Your task to perform on an android device: add a contact in the contacts app Image 0: 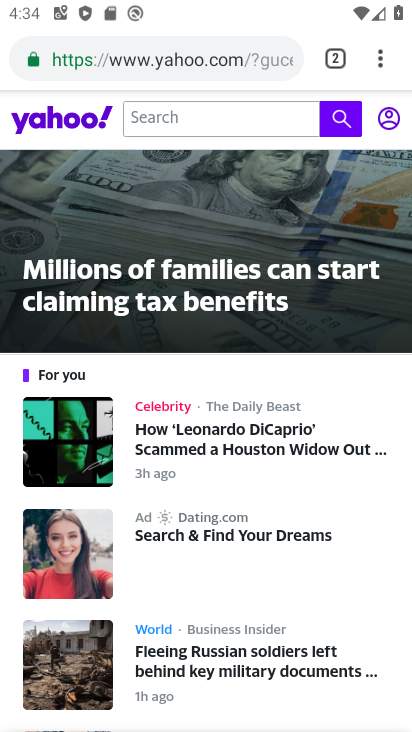
Step 0: press home button
Your task to perform on an android device: add a contact in the contacts app Image 1: 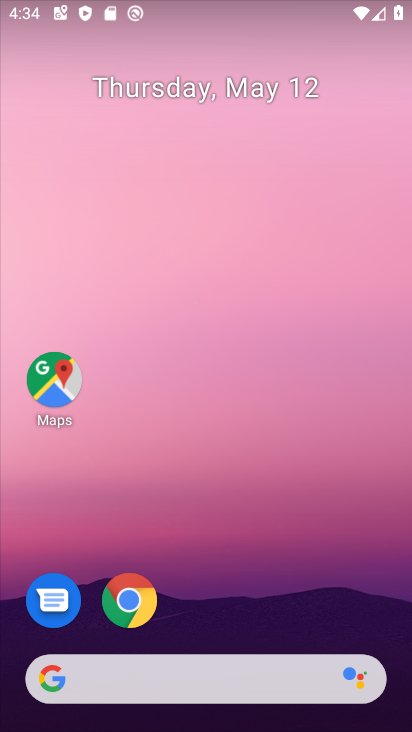
Step 1: drag from (243, 596) to (358, 124)
Your task to perform on an android device: add a contact in the contacts app Image 2: 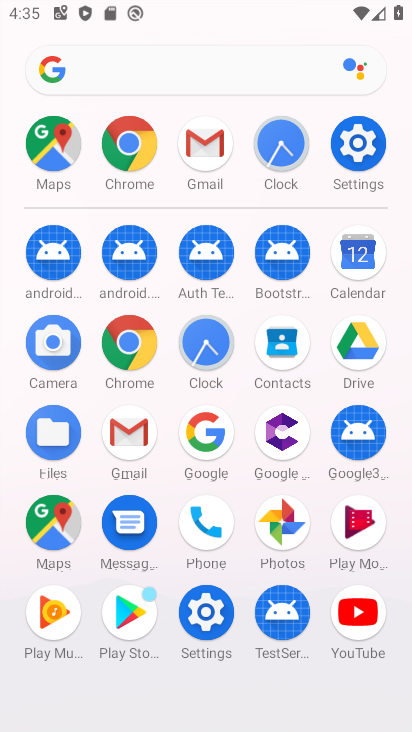
Step 2: click (279, 349)
Your task to perform on an android device: add a contact in the contacts app Image 3: 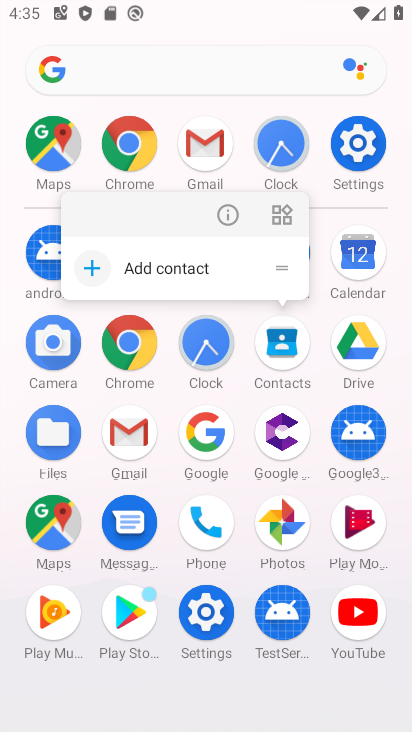
Step 3: click (226, 209)
Your task to perform on an android device: add a contact in the contacts app Image 4: 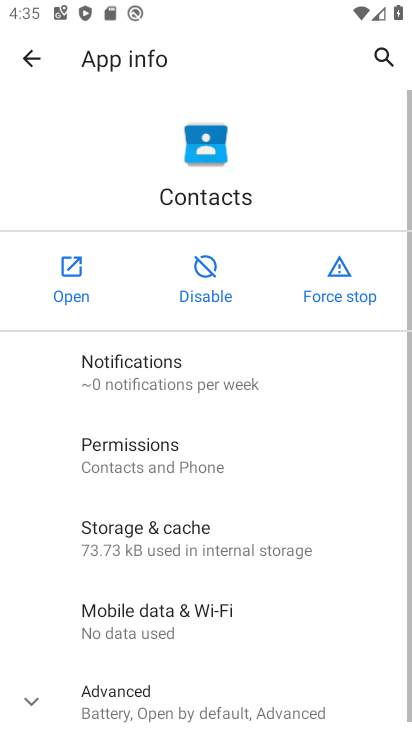
Step 4: click (77, 252)
Your task to perform on an android device: add a contact in the contacts app Image 5: 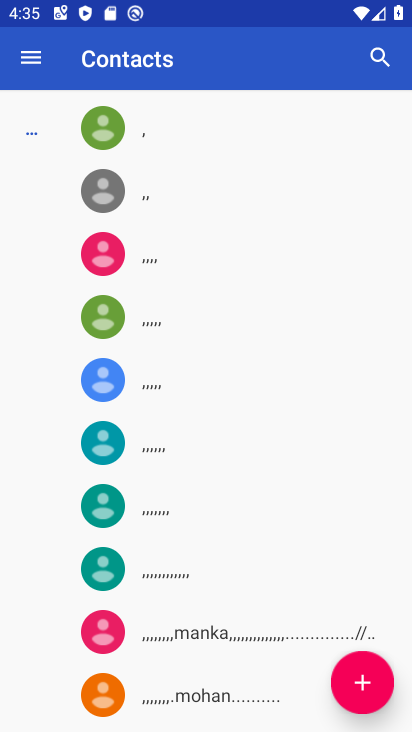
Step 5: drag from (241, 592) to (281, 330)
Your task to perform on an android device: add a contact in the contacts app Image 6: 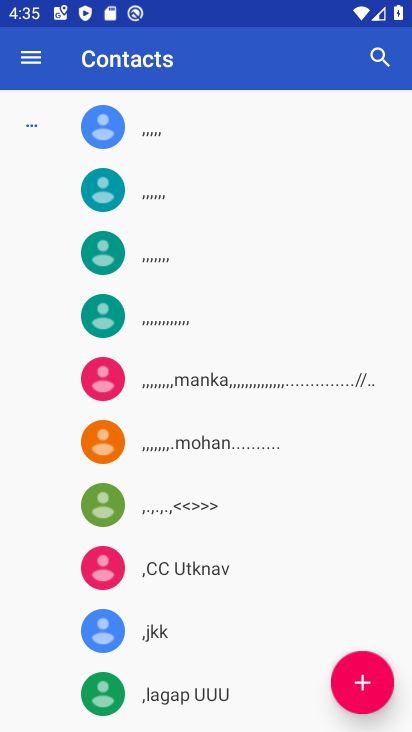
Step 6: drag from (170, 261) to (216, 641)
Your task to perform on an android device: add a contact in the contacts app Image 7: 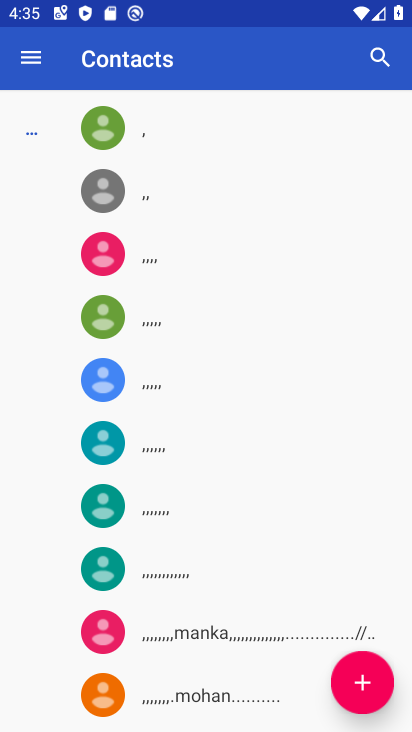
Step 7: drag from (219, 333) to (230, 658)
Your task to perform on an android device: add a contact in the contacts app Image 8: 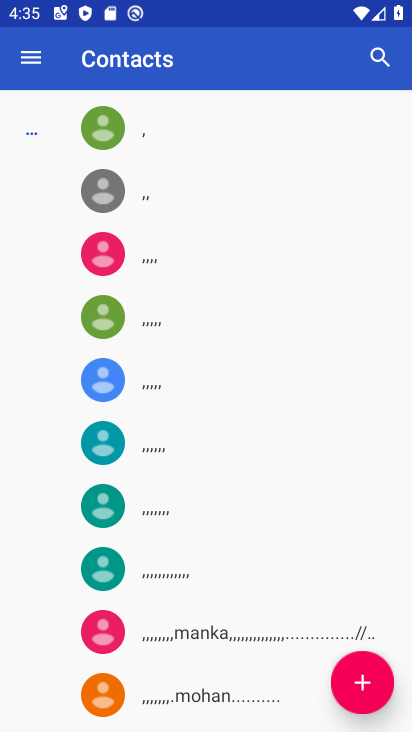
Step 8: drag from (193, 233) to (252, 540)
Your task to perform on an android device: add a contact in the contacts app Image 9: 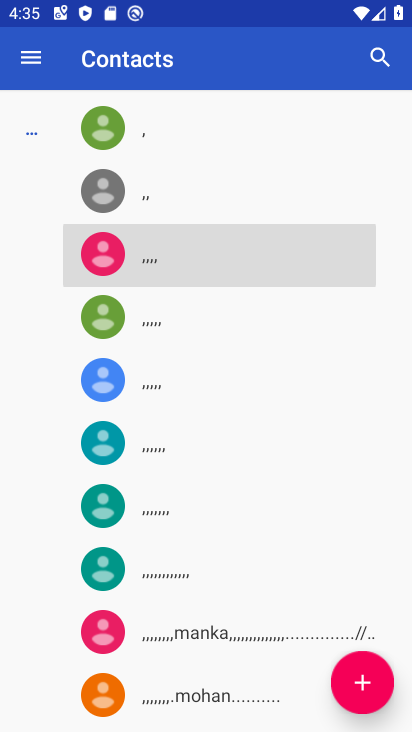
Step 9: click (354, 687)
Your task to perform on an android device: add a contact in the contacts app Image 10: 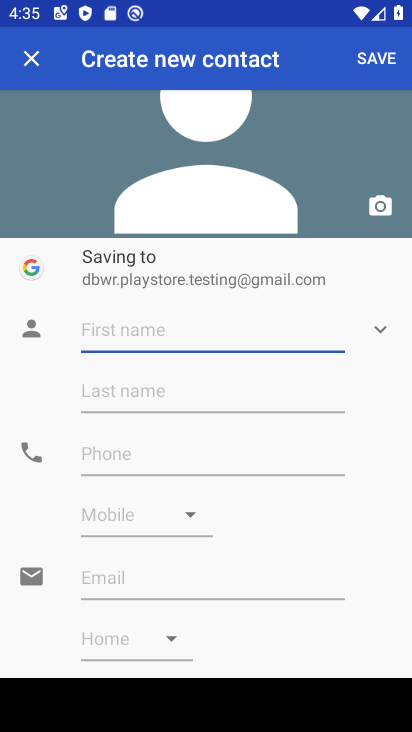
Step 10: click (149, 324)
Your task to perform on an android device: add a contact in the contacts app Image 11: 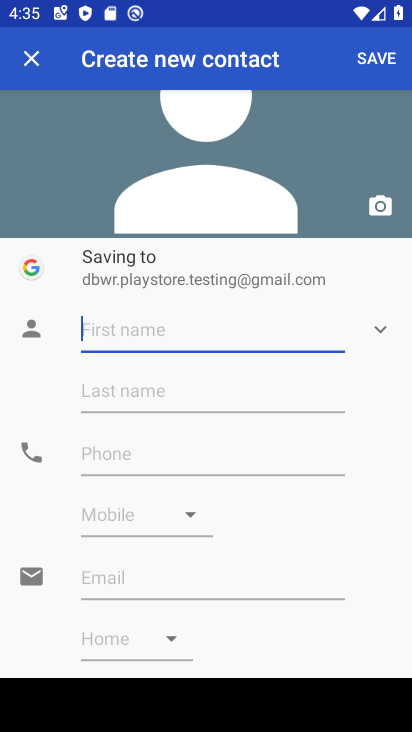
Step 11: type "mjka"
Your task to perform on an android device: add a contact in the contacts app Image 12: 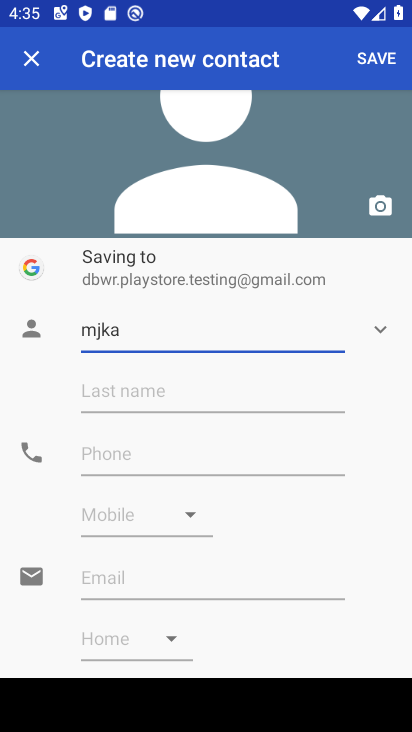
Step 12: click (377, 53)
Your task to perform on an android device: add a contact in the contacts app Image 13: 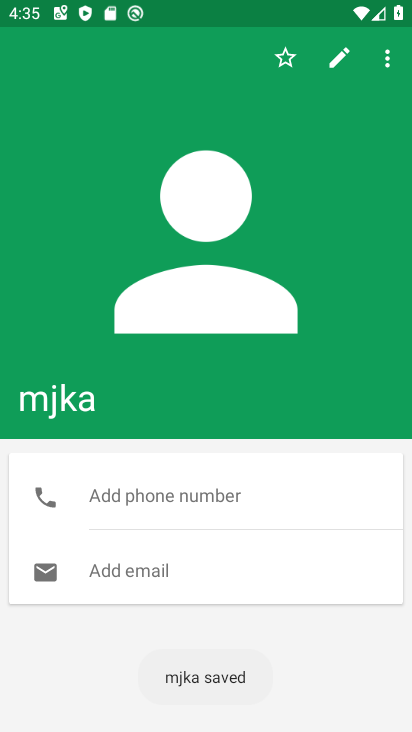
Step 13: task complete